Your task to perform on an android device: Search for vegetarian restaurants on Maps Image 0: 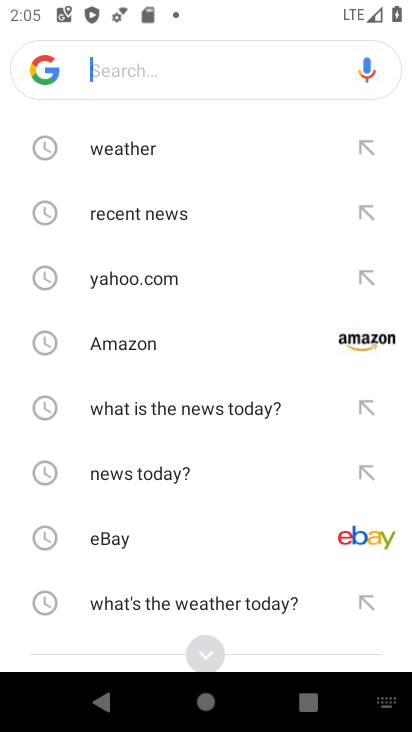
Step 0: press home button
Your task to perform on an android device: Search for vegetarian restaurants on Maps Image 1: 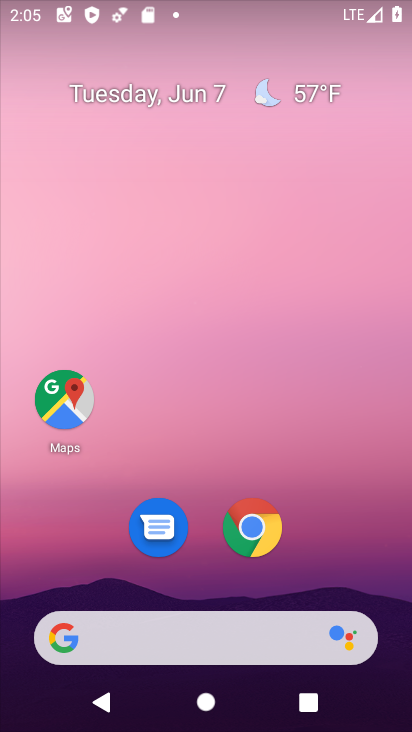
Step 1: click (75, 387)
Your task to perform on an android device: Search for vegetarian restaurants on Maps Image 2: 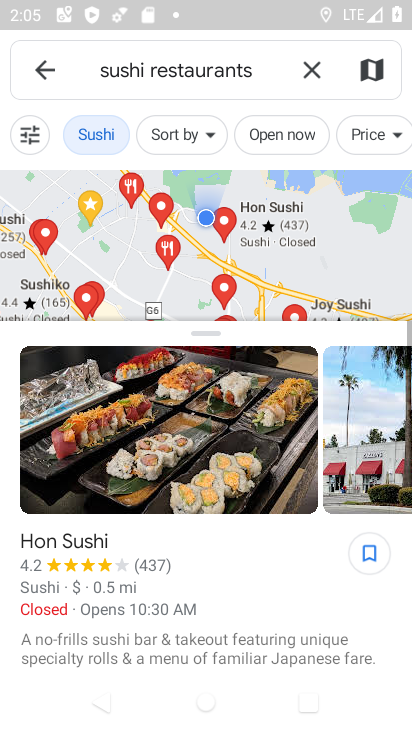
Step 2: click (315, 77)
Your task to perform on an android device: Search for vegetarian restaurants on Maps Image 3: 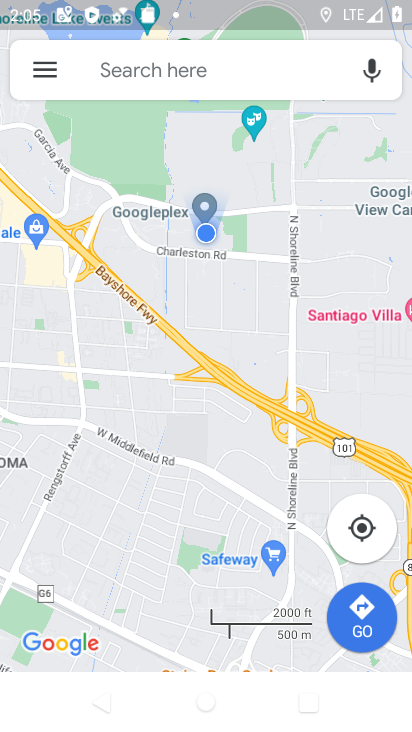
Step 3: click (199, 74)
Your task to perform on an android device: Search for vegetarian restaurants on Maps Image 4: 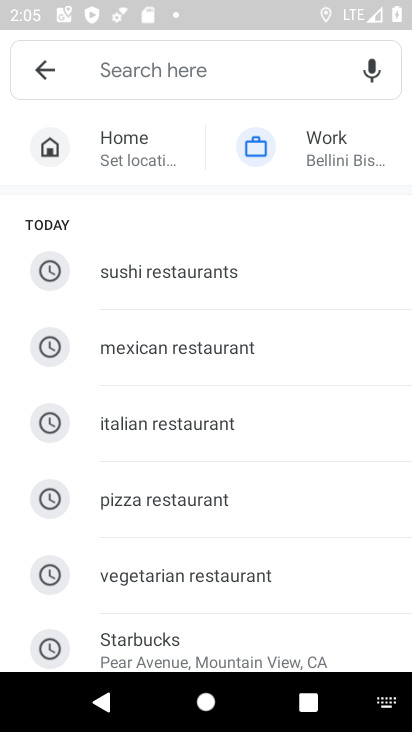
Step 4: click (201, 583)
Your task to perform on an android device: Search for vegetarian restaurants on Maps Image 5: 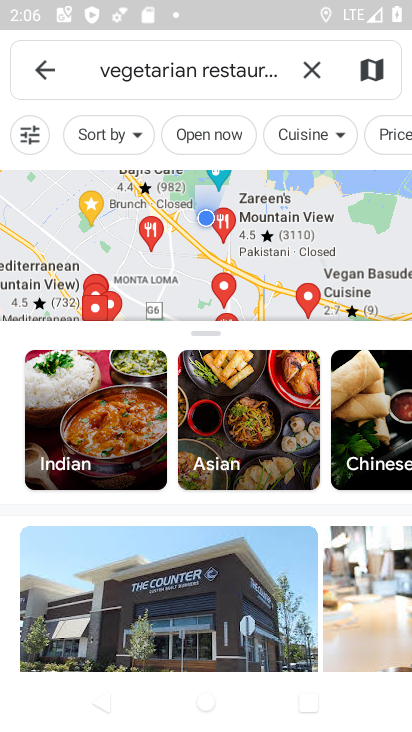
Step 5: task complete